Your task to perform on an android device: Open Google Chrome and open the bookmarks view Image 0: 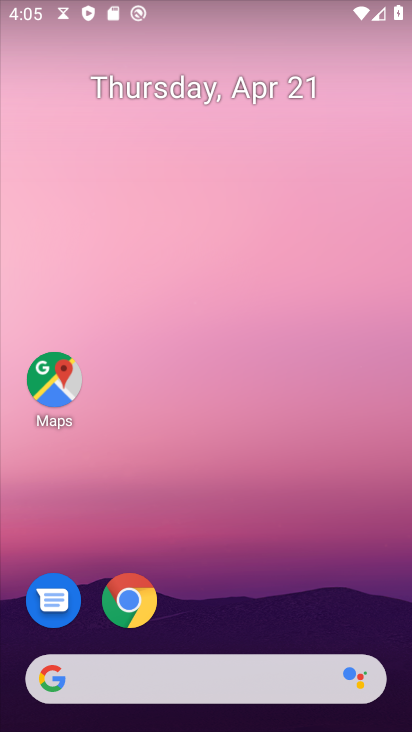
Step 0: click (129, 601)
Your task to perform on an android device: Open Google Chrome and open the bookmarks view Image 1: 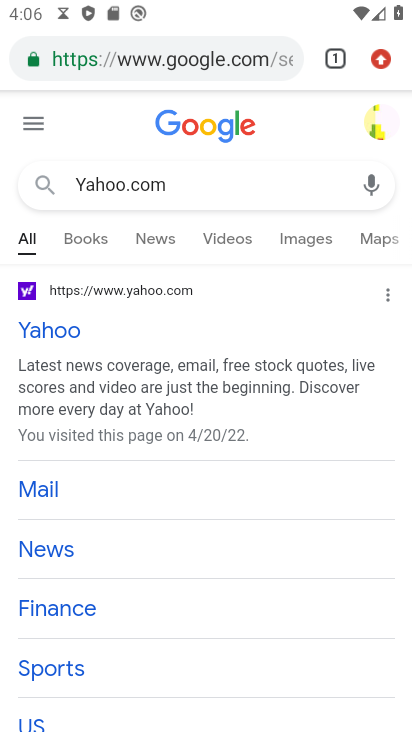
Step 1: click (384, 59)
Your task to perform on an android device: Open Google Chrome and open the bookmarks view Image 2: 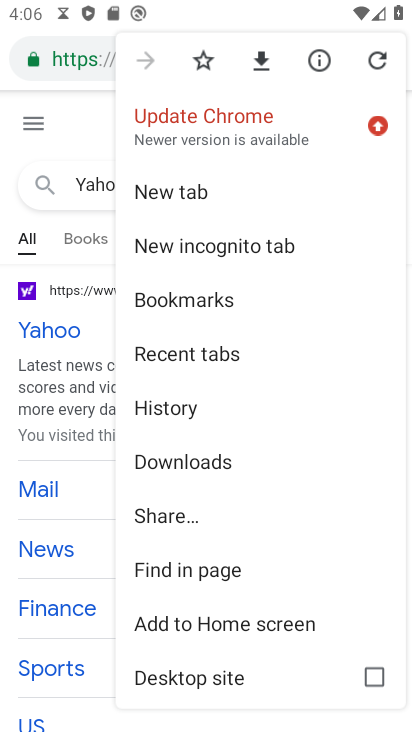
Step 2: click (211, 299)
Your task to perform on an android device: Open Google Chrome and open the bookmarks view Image 3: 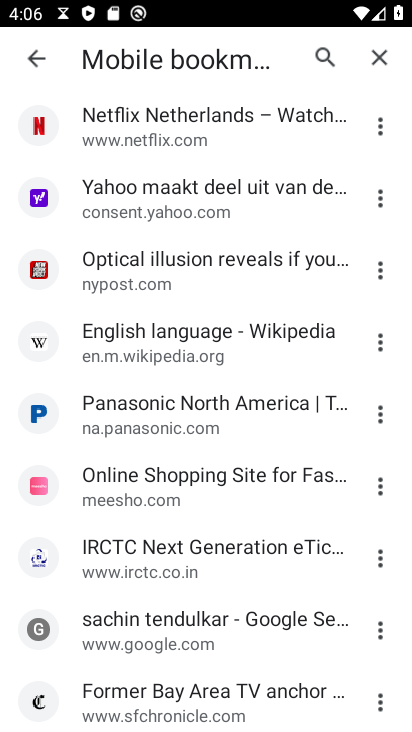
Step 3: drag from (182, 467) to (183, 355)
Your task to perform on an android device: Open Google Chrome and open the bookmarks view Image 4: 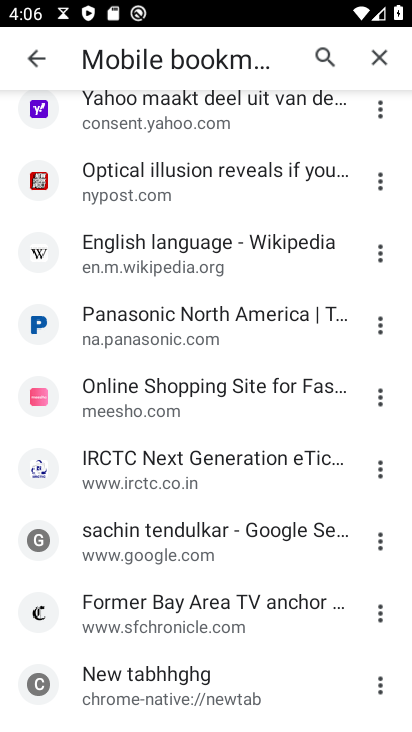
Step 4: click (225, 179)
Your task to perform on an android device: Open Google Chrome and open the bookmarks view Image 5: 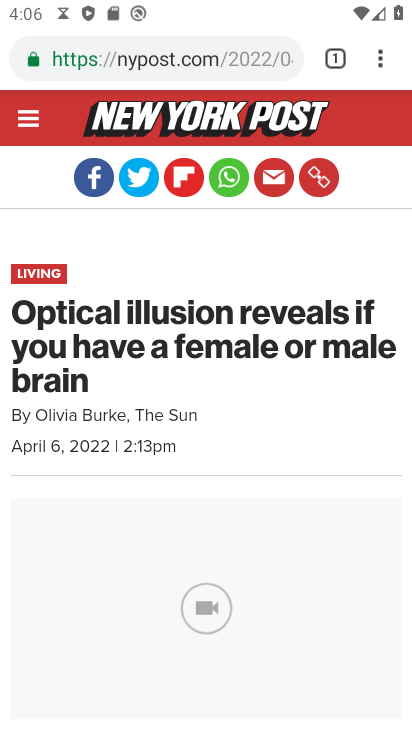
Step 5: task complete